Your task to perform on an android device: change notifications settings Image 0: 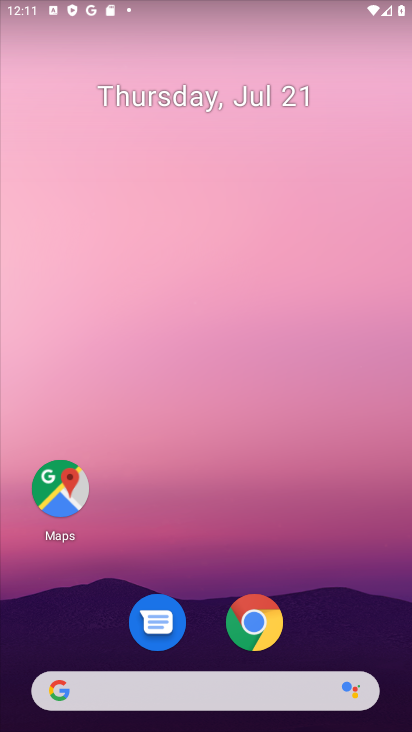
Step 0: drag from (235, 694) to (336, 175)
Your task to perform on an android device: change notifications settings Image 1: 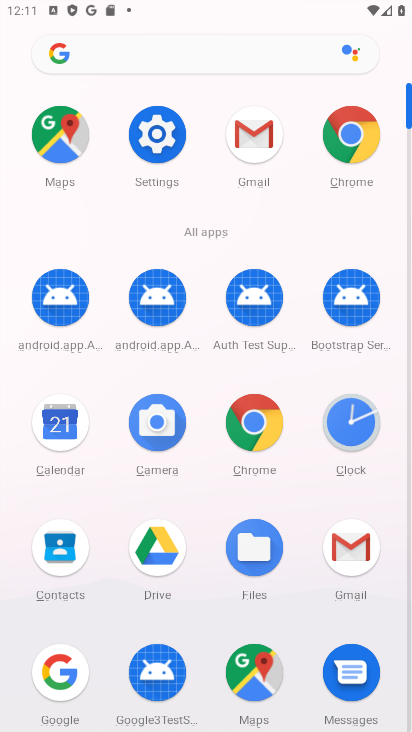
Step 1: click (147, 132)
Your task to perform on an android device: change notifications settings Image 2: 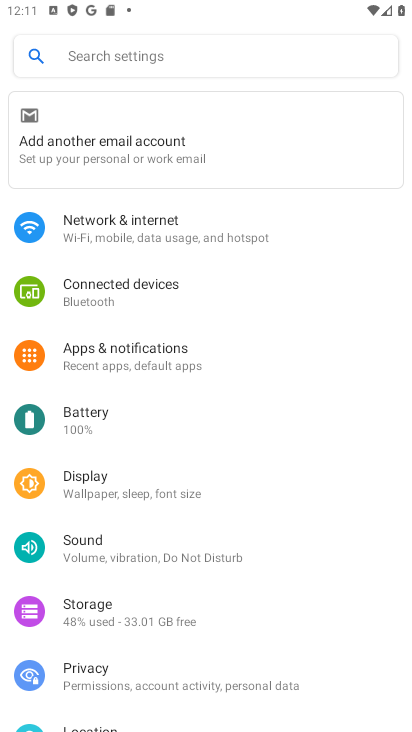
Step 2: click (124, 50)
Your task to perform on an android device: change notifications settings Image 3: 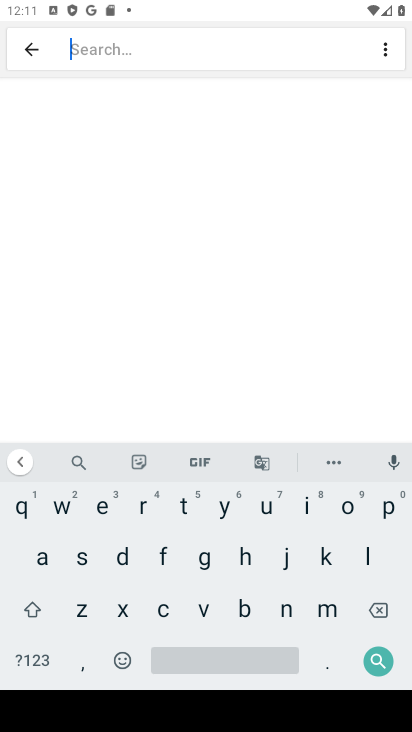
Step 3: click (285, 603)
Your task to perform on an android device: change notifications settings Image 4: 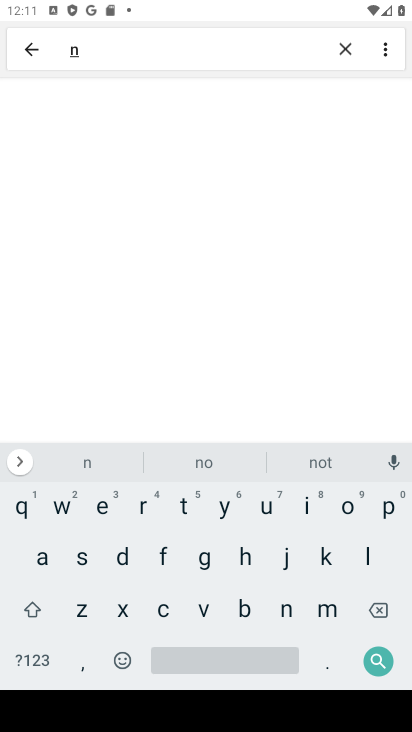
Step 4: click (342, 500)
Your task to perform on an android device: change notifications settings Image 5: 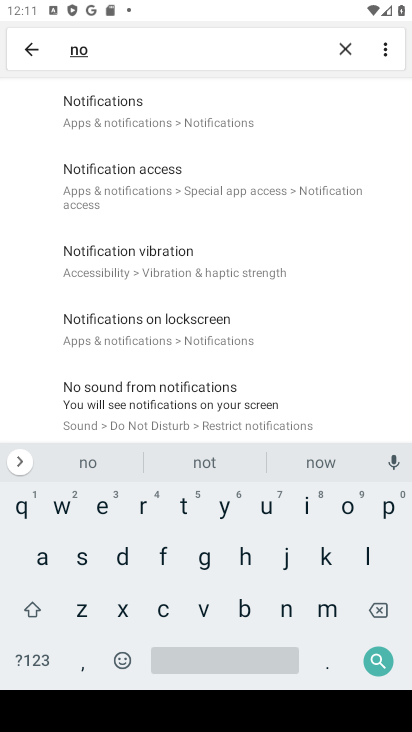
Step 5: click (193, 113)
Your task to perform on an android device: change notifications settings Image 6: 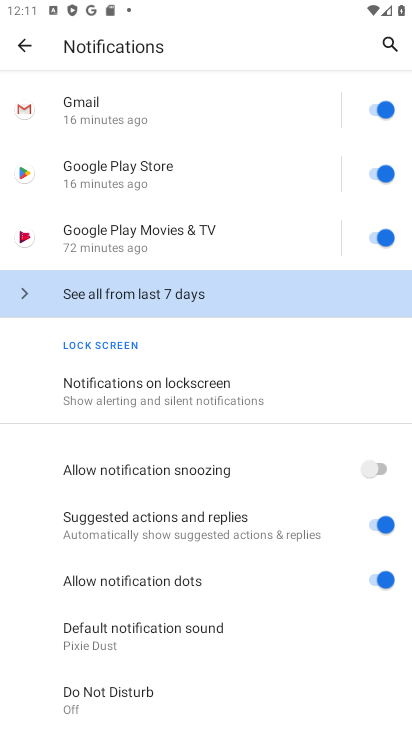
Step 6: click (136, 388)
Your task to perform on an android device: change notifications settings Image 7: 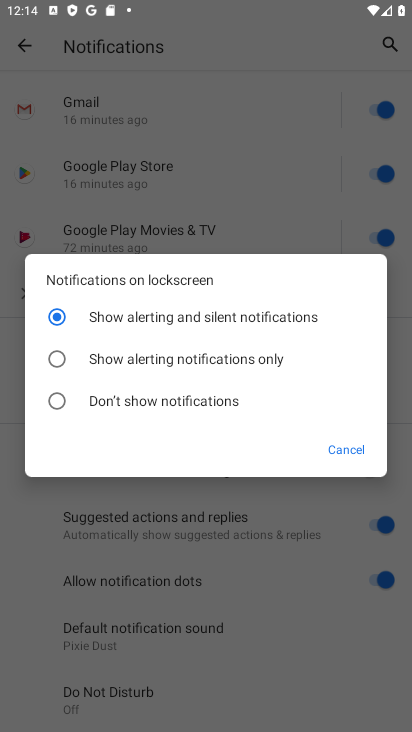
Step 7: task complete